Your task to perform on an android device: Do I have any events tomorrow? Image 0: 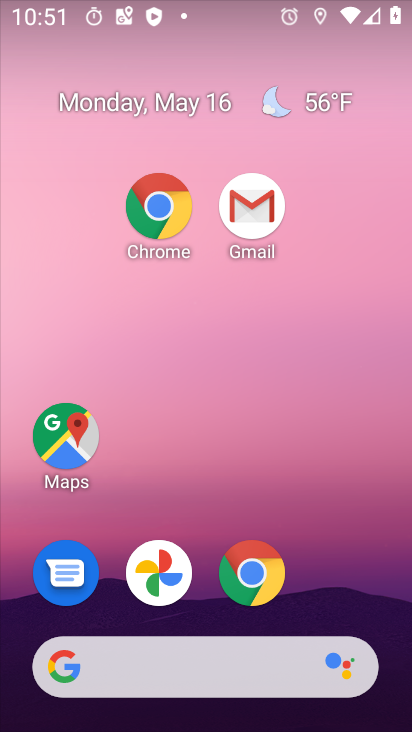
Step 0: drag from (316, 578) to (231, 49)
Your task to perform on an android device: Do I have any events tomorrow? Image 1: 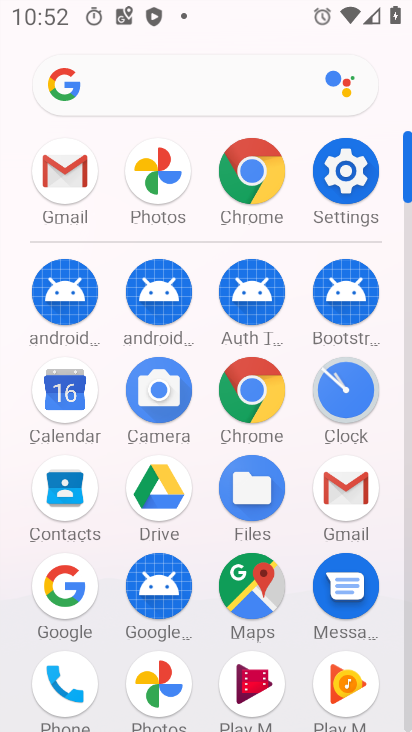
Step 1: click (69, 386)
Your task to perform on an android device: Do I have any events tomorrow? Image 2: 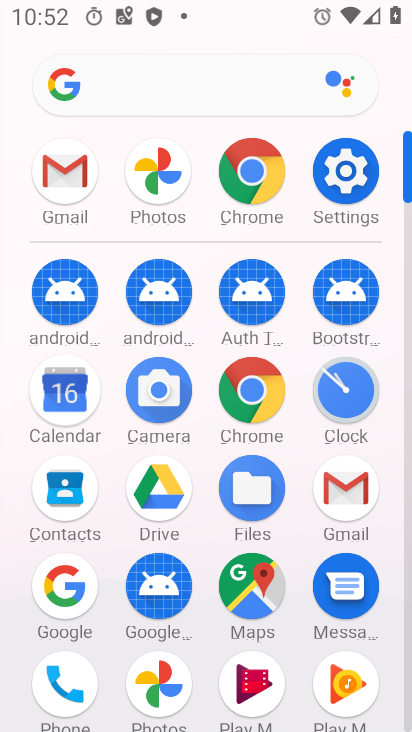
Step 2: click (70, 385)
Your task to perform on an android device: Do I have any events tomorrow? Image 3: 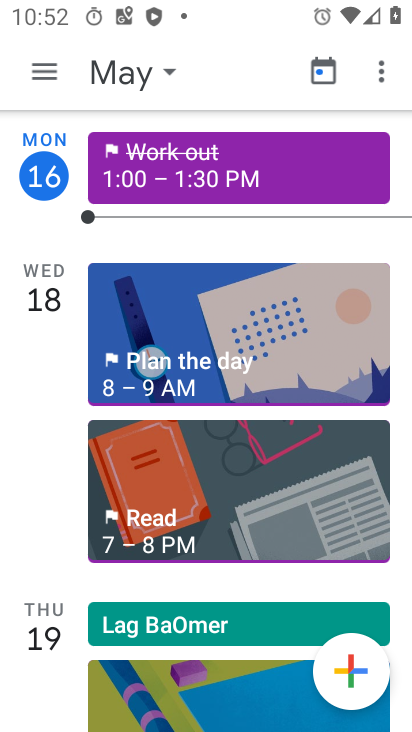
Step 3: click (136, 335)
Your task to perform on an android device: Do I have any events tomorrow? Image 4: 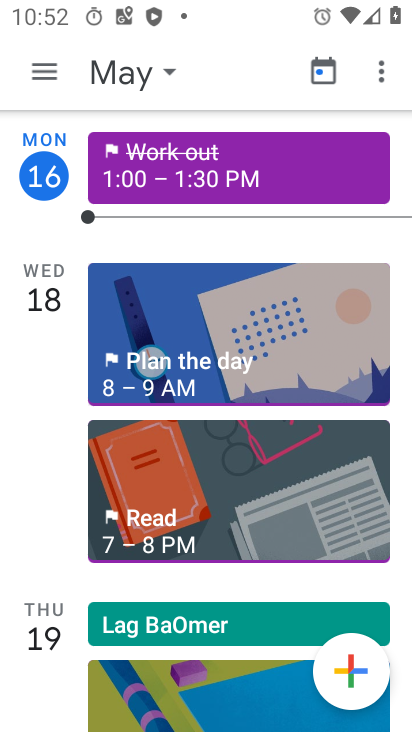
Step 4: click (137, 334)
Your task to perform on an android device: Do I have any events tomorrow? Image 5: 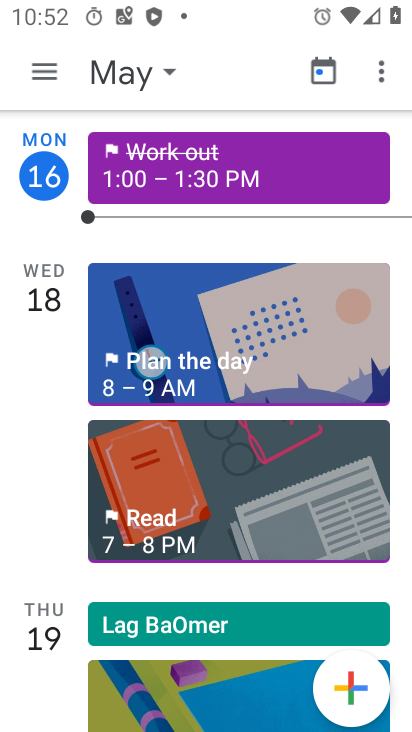
Step 5: click (150, 340)
Your task to perform on an android device: Do I have any events tomorrow? Image 6: 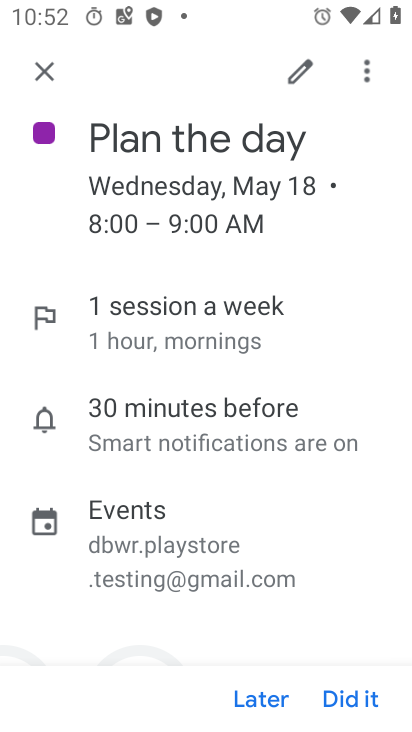
Step 6: task complete